Your task to perform on an android device: check android version Image 0: 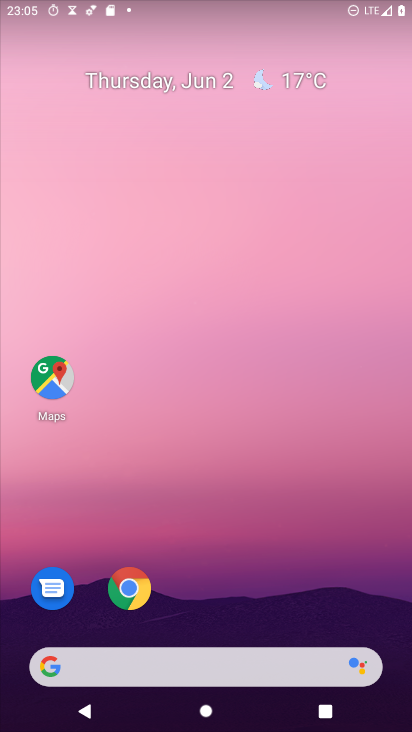
Step 0: drag from (221, 562) to (249, 83)
Your task to perform on an android device: check android version Image 1: 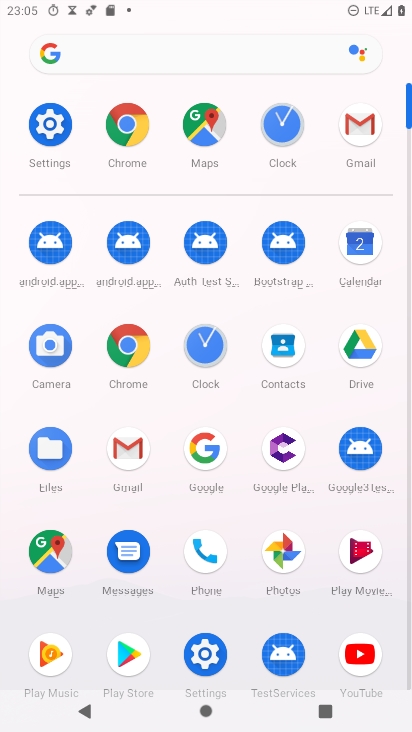
Step 1: click (48, 112)
Your task to perform on an android device: check android version Image 2: 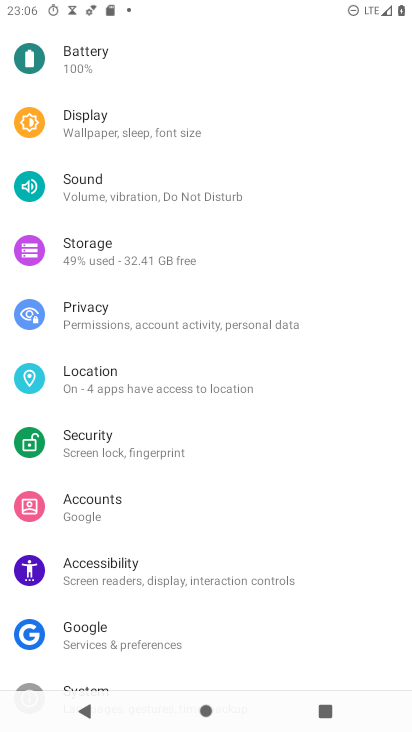
Step 2: drag from (181, 671) to (274, 22)
Your task to perform on an android device: check android version Image 3: 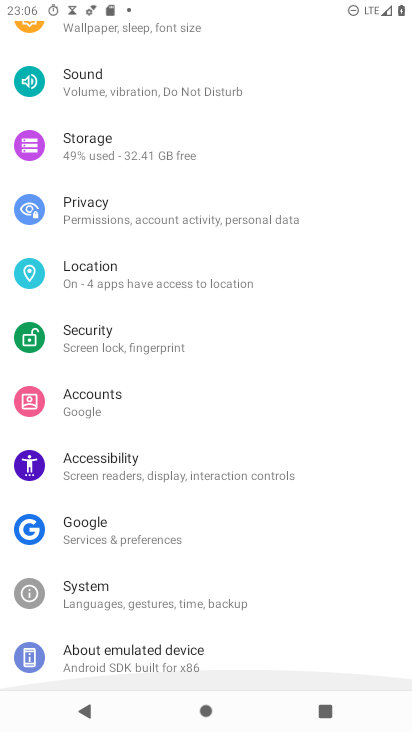
Step 3: drag from (176, 645) to (186, 115)
Your task to perform on an android device: check android version Image 4: 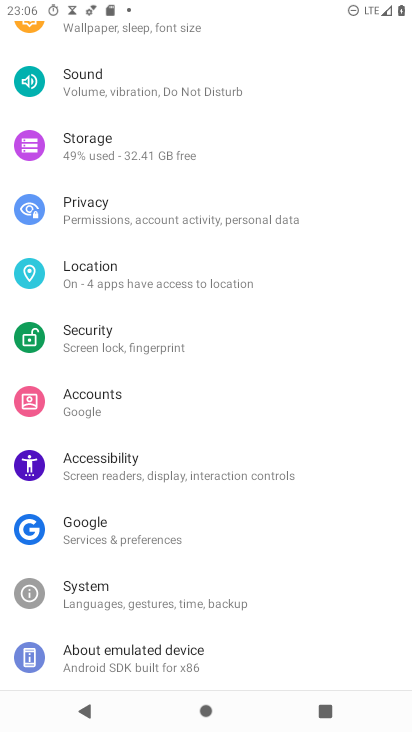
Step 4: click (114, 670)
Your task to perform on an android device: check android version Image 5: 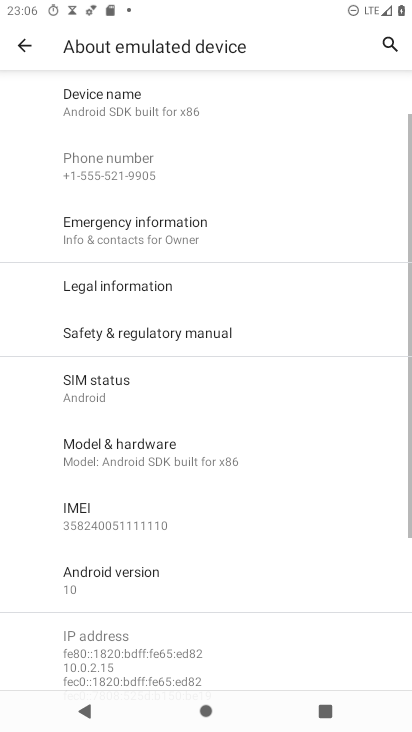
Step 5: click (177, 591)
Your task to perform on an android device: check android version Image 6: 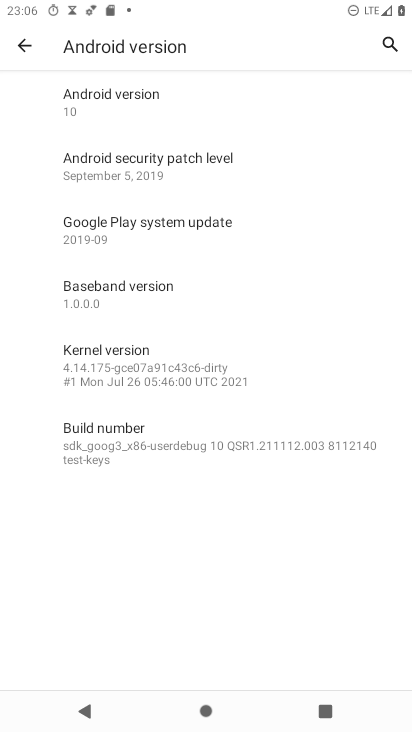
Step 6: task complete